Your task to perform on an android device: Go to Amazon Image 0: 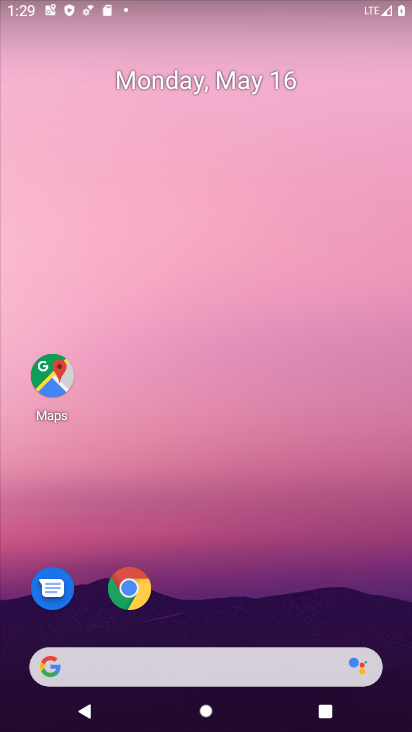
Step 0: click (128, 591)
Your task to perform on an android device: Go to Amazon Image 1: 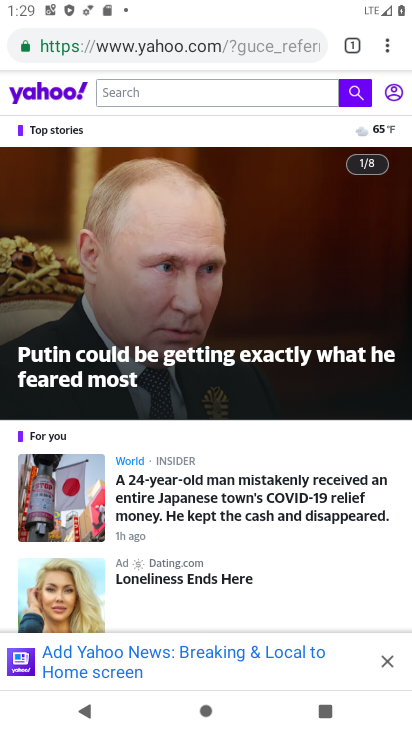
Step 1: click (302, 48)
Your task to perform on an android device: Go to Amazon Image 2: 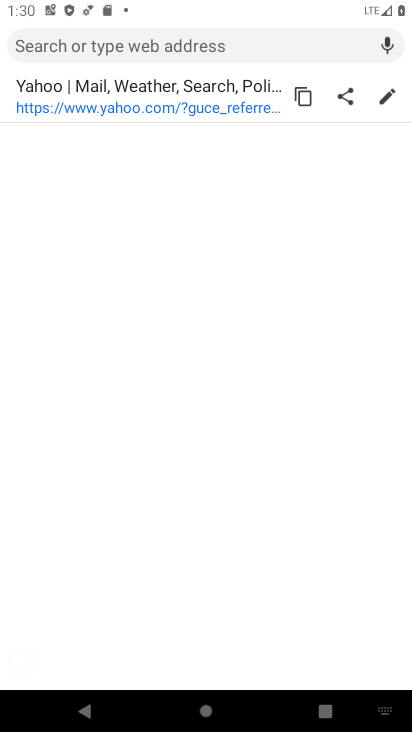
Step 2: type "Amazon"
Your task to perform on an android device: Go to Amazon Image 3: 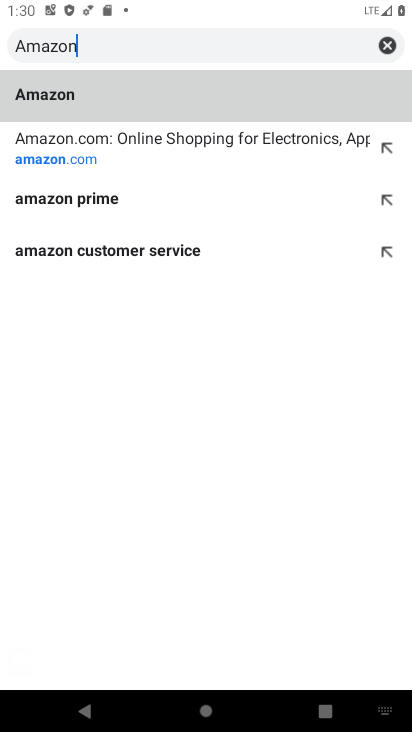
Step 3: click (120, 102)
Your task to perform on an android device: Go to Amazon Image 4: 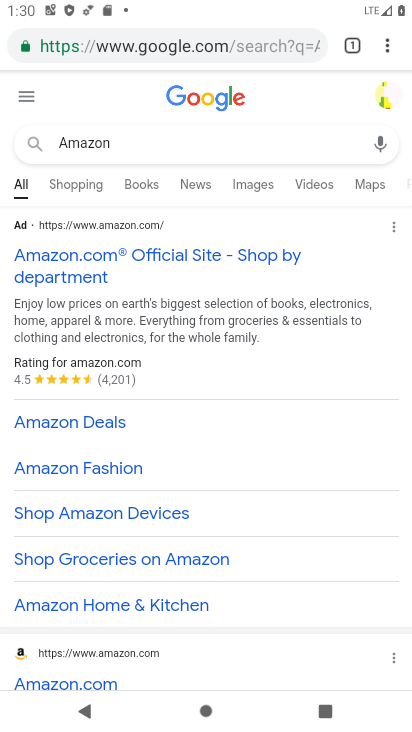
Step 4: click (104, 251)
Your task to perform on an android device: Go to Amazon Image 5: 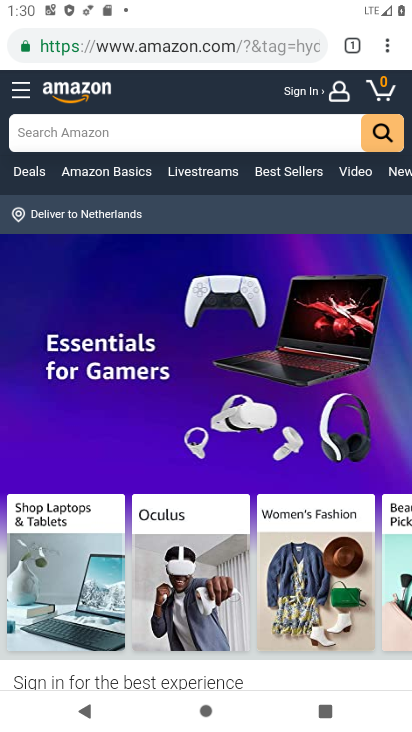
Step 5: task complete